Your task to perform on an android device: Open settings on Google Maps Image 0: 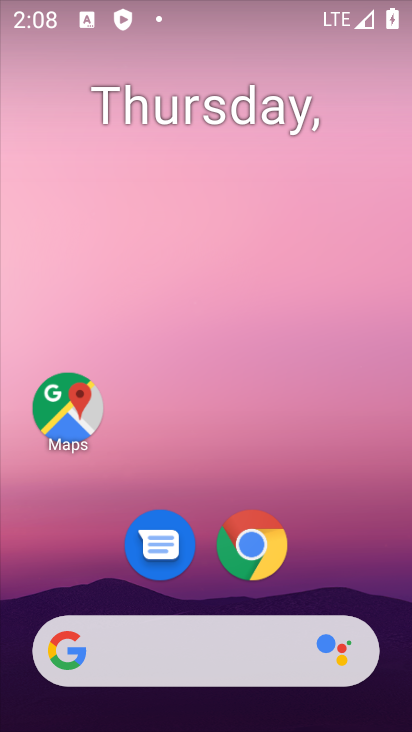
Step 0: drag from (203, 635) to (274, 19)
Your task to perform on an android device: Open settings on Google Maps Image 1: 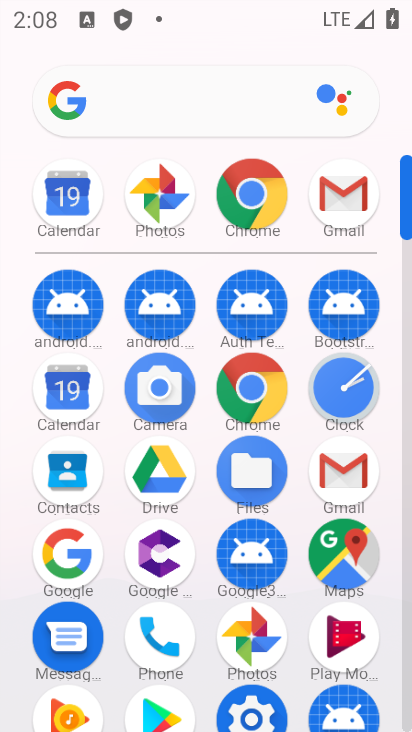
Step 1: click (341, 567)
Your task to perform on an android device: Open settings on Google Maps Image 2: 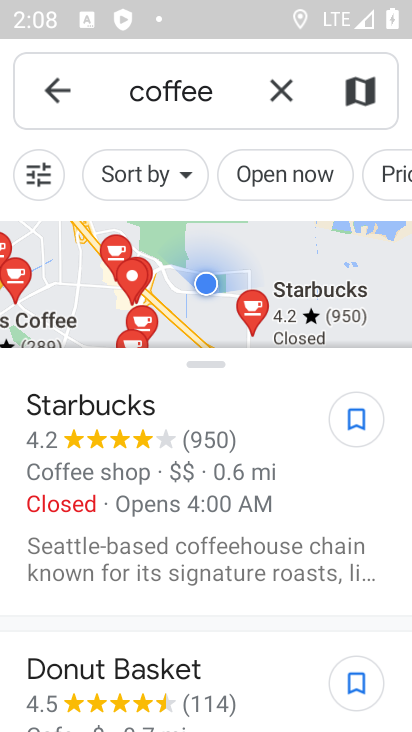
Step 2: press back button
Your task to perform on an android device: Open settings on Google Maps Image 3: 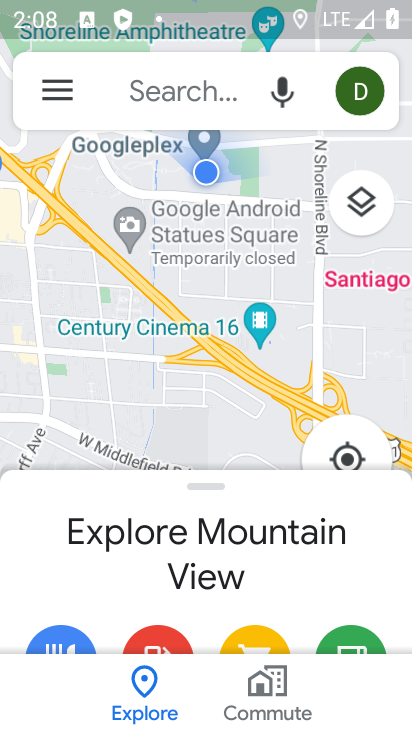
Step 3: click (43, 89)
Your task to perform on an android device: Open settings on Google Maps Image 4: 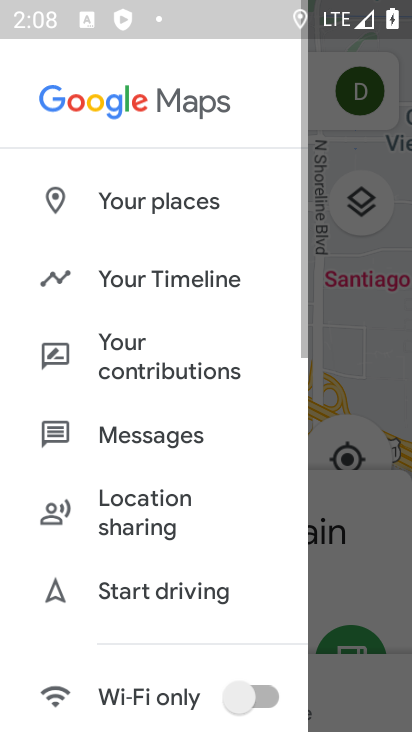
Step 4: click (227, 260)
Your task to perform on an android device: Open settings on Google Maps Image 5: 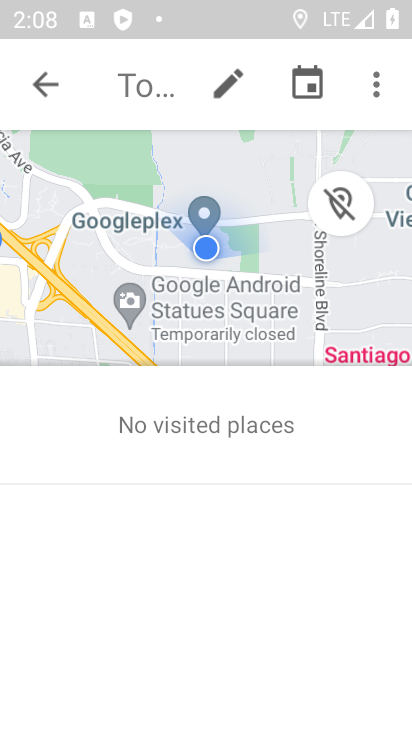
Step 5: click (368, 85)
Your task to perform on an android device: Open settings on Google Maps Image 6: 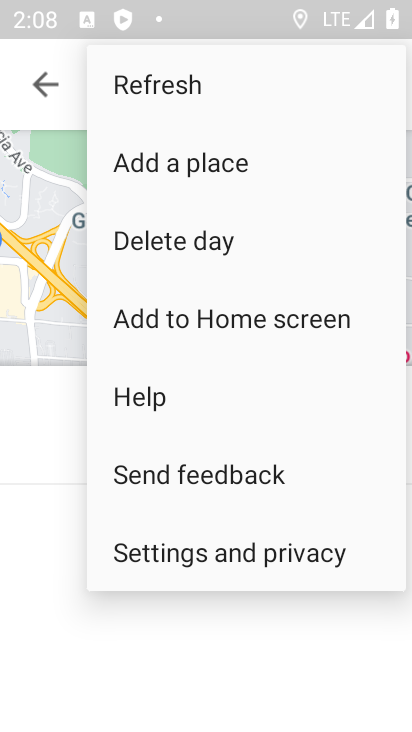
Step 6: click (223, 555)
Your task to perform on an android device: Open settings on Google Maps Image 7: 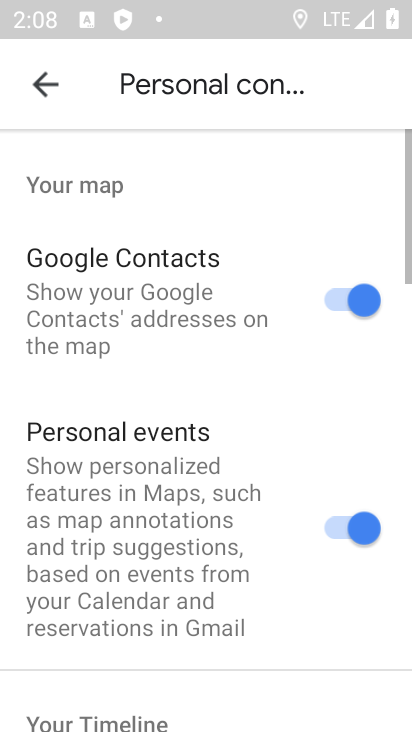
Step 7: task complete